Your task to perform on an android device: Go to ESPN.com Image 0: 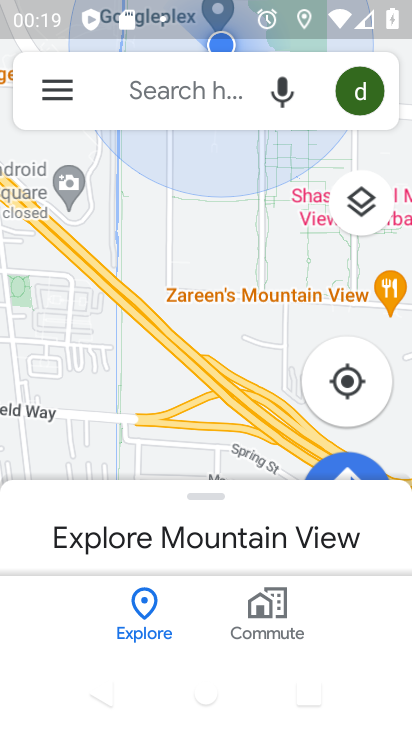
Step 0: press home button
Your task to perform on an android device: Go to ESPN.com Image 1: 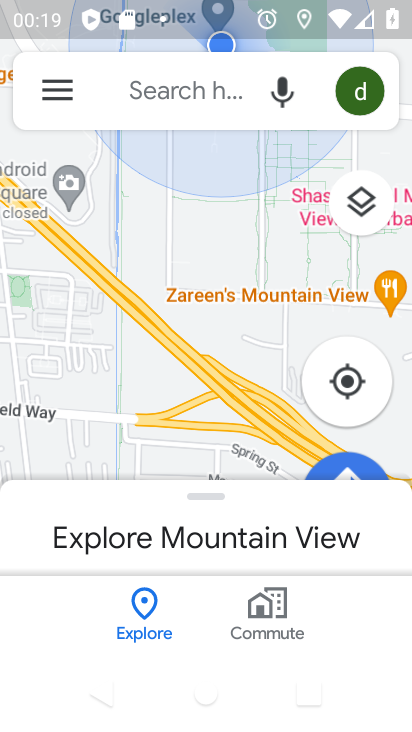
Step 1: press home button
Your task to perform on an android device: Go to ESPN.com Image 2: 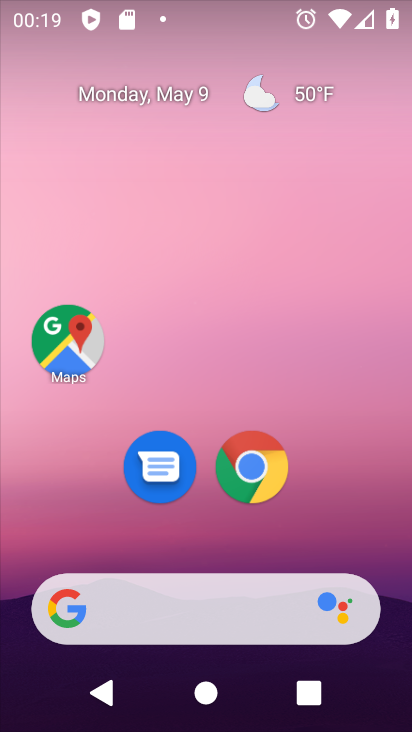
Step 2: click (248, 458)
Your task to perform on an android device: Go to ESPN.com Image 3: 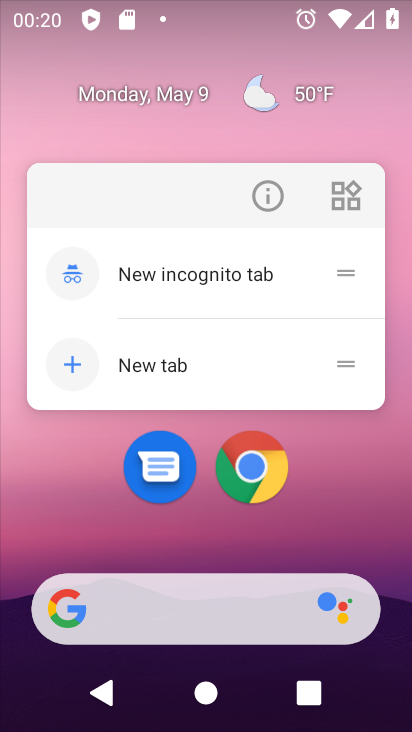
Step 3: click (255, 467)
Your task to perform on an android device: Go to ESPN.com Image 4: 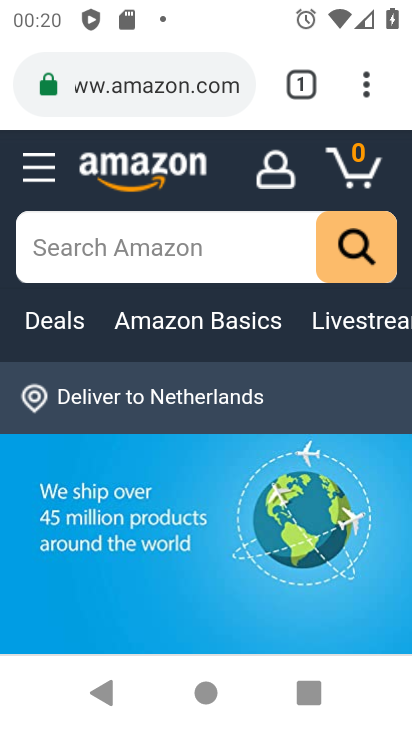
Step 4: click (300, 84)
Your task to perform on an android device: Go to ESPN.com Image 5: 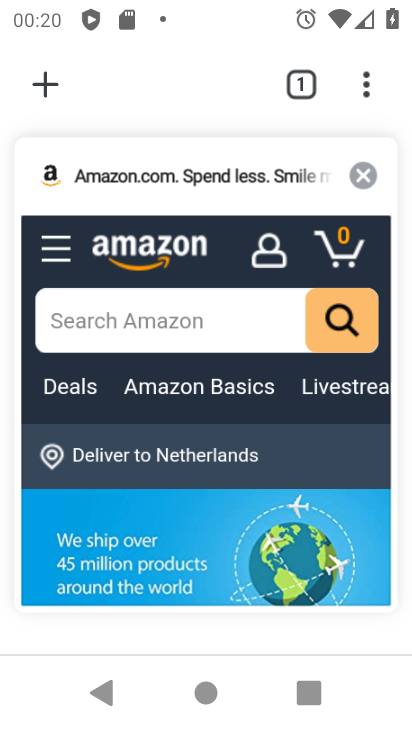
Step 5: click (361, 171)
Your task to perform on an android device: Go to ESPN.com Image 6: 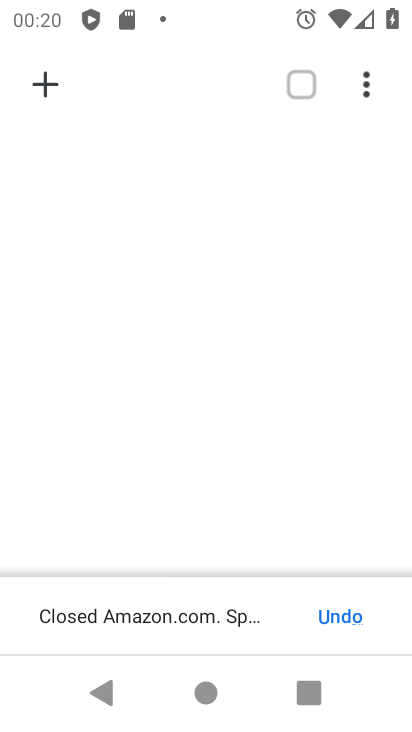
Step 6: click (48, 78)
Your task to perform on an android device: Go to ESPN.com Image 7: 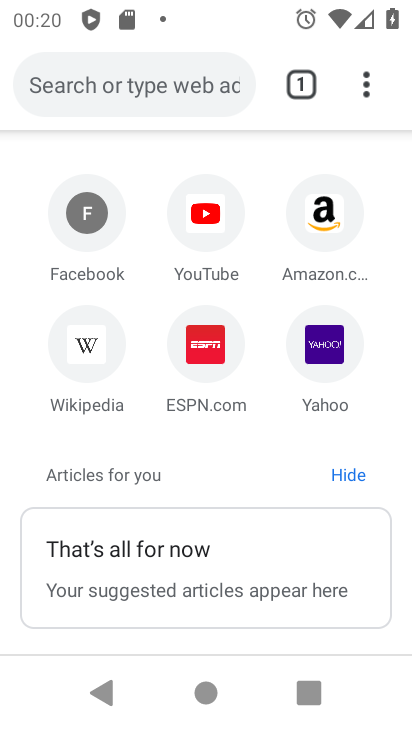
Step 7: click (203, 348)
Your task to perform on an android device: Go to ESPN.com Image 8: 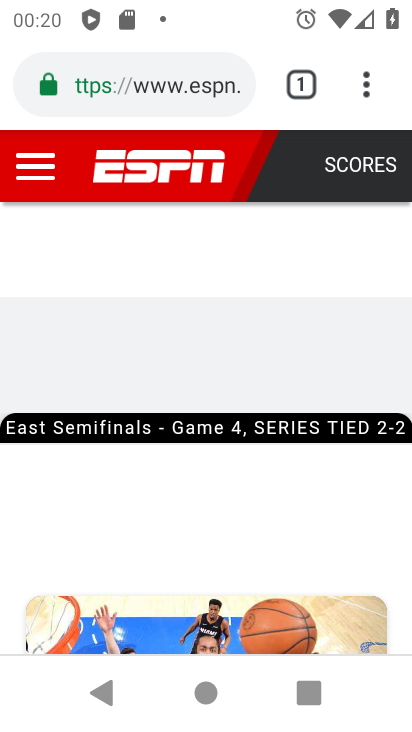
Step 8: task complete